Your task to perform on an android device: Turn on the flashlight Image 0: 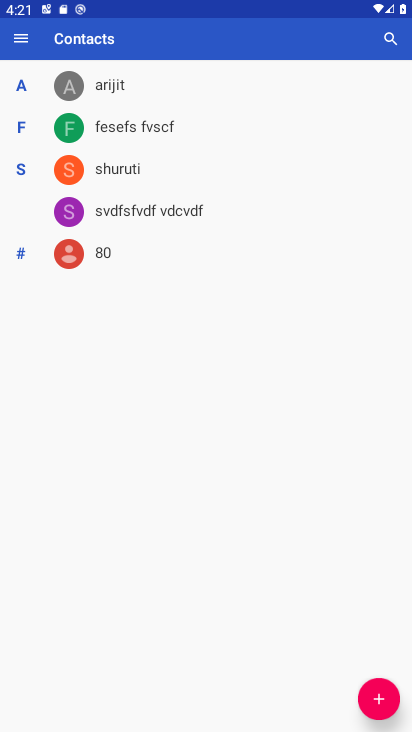
Step 0: press home button
Your task to perform on an android device: Turn on the flashlight Image 1: 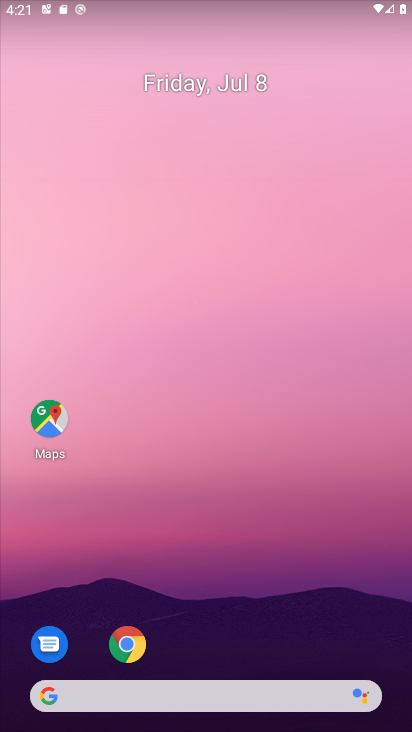
Step 1: drag from (240, 19) to (232, 327)
Your task to perform on an android device: Turn on the flashlight Image 2: 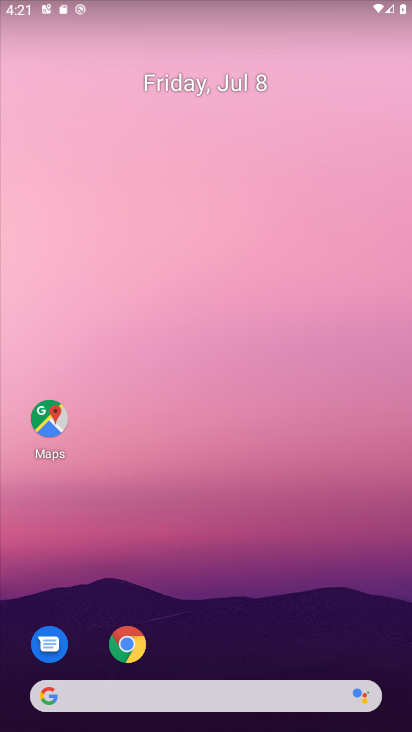
Step 2: drag from (243, 26) to (263, 522)
Your task to perform on an android device: Turn on the flashlight Image 3: 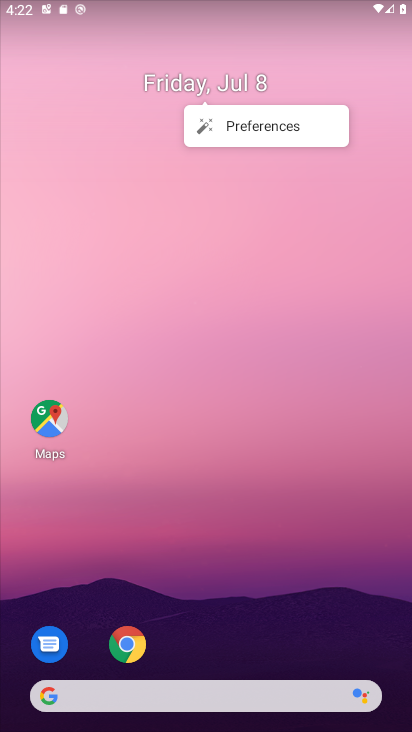
Step 3: drag from (242, 39) to (235, 374)
Your task to perform on an android device: Turn on the flashlight Image 4: 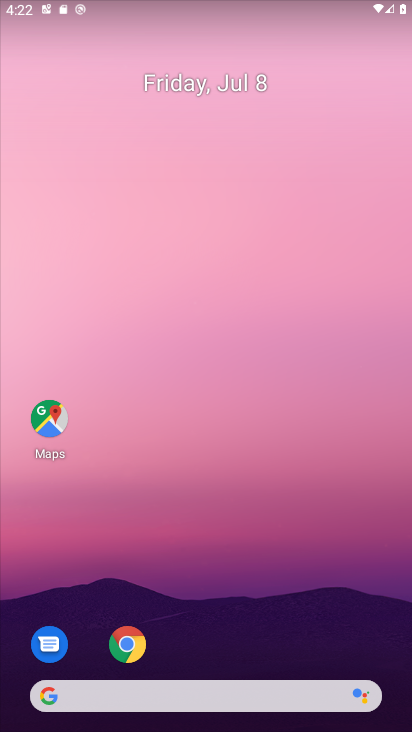
Step 4: drag from (196, 29) to (229, 487)
Your task to perform on an android device: Turn on the flashlight Image 5: 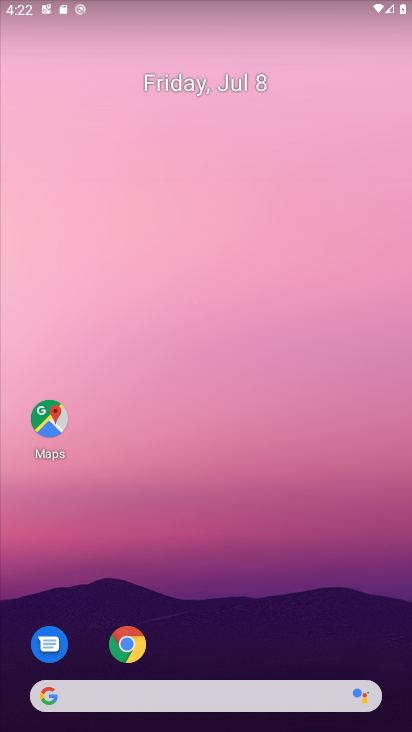
Step 5: press back button
Your task to perform on an android device: Turn on the flashlight Image 6: 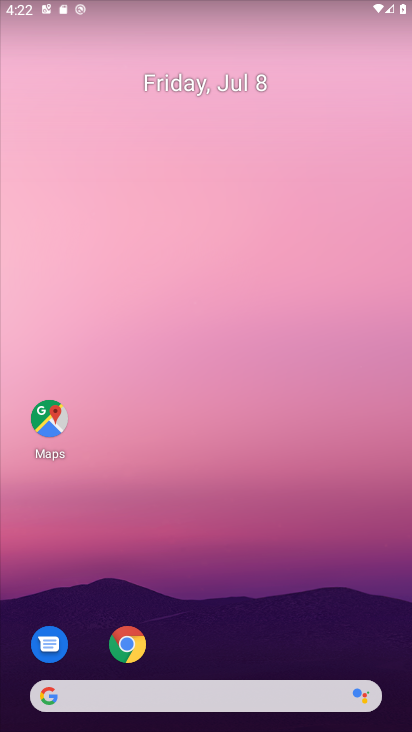
Step 6: drag from (205, 38) to (196, 432)
Your task to perform on an android device: Turn on the flashlight Image 7: 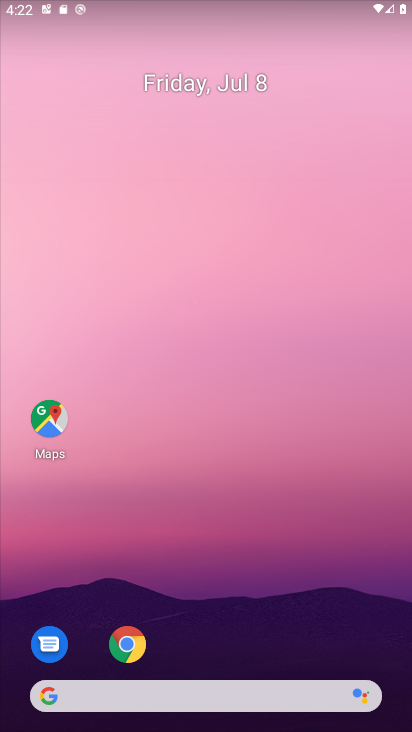
Step 7: drag from (206, 606) to (236, 197)
Your task to perform on an android device: Turn on the flashlight Image 8: 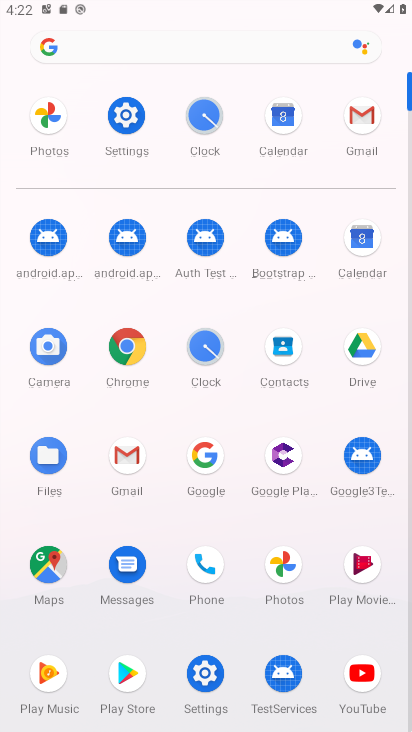
Step 8: drag from (260, 0) to (263, 433)
Your task to perform on an android device: Turn on the flashlight Image 9: 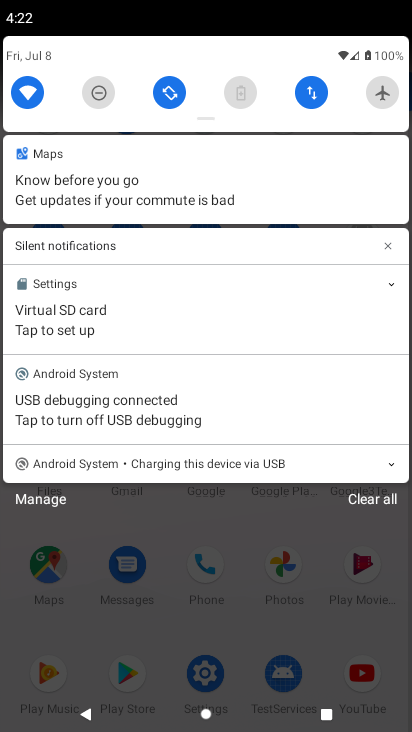
Step 9: drag from (201, 118) to (193, 374)
Your task to perform on an android device: Turn on the flashlight Image 10: 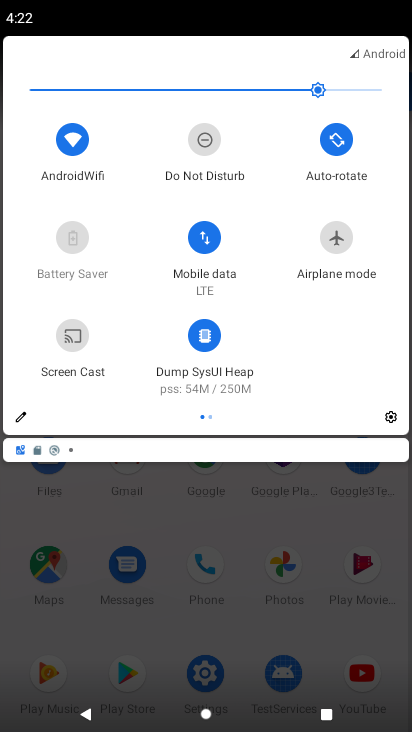
Step 10: click (17, 419)
Your task to perform on an android device: Turn on the flashlight Image 11: 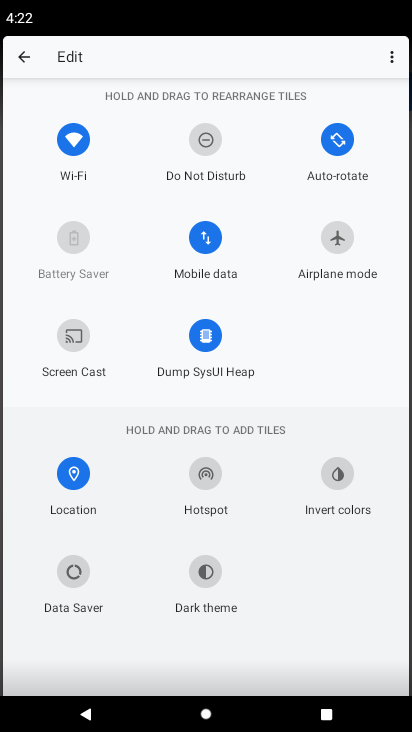
Step 11: task complete